Your task to perform on an android device: Search for jbl flip 4 on amazon.com, select the first entry, add it to the cart, then select checkout. Image 0: 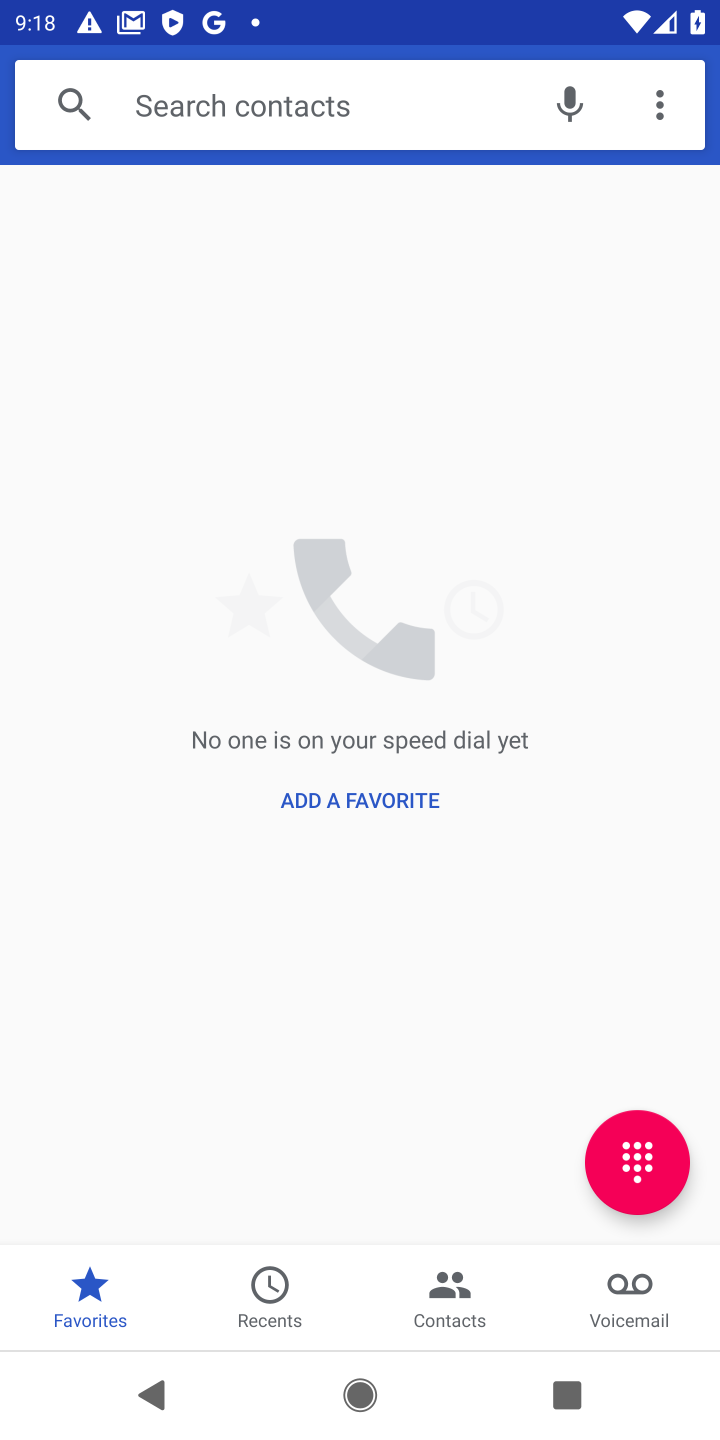
Step 0: press home button
Your task to perform on an android device: Search for jbl flip 4 on amazon.com, select the first entry, add it to the cart, then select checkout. Image 1: 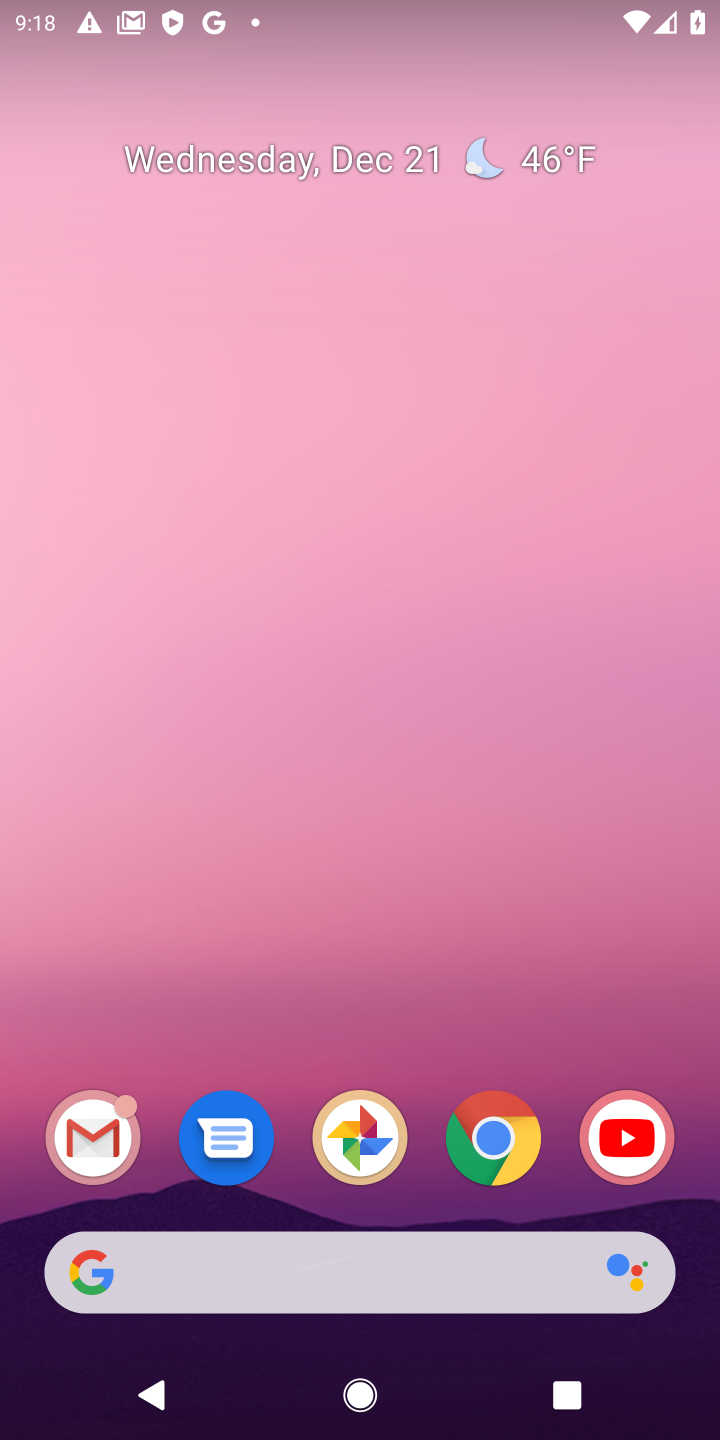
Step 1: click (472, 1151)
Your task to perform on an android device: Search for jbl flip 4 on amazon.com, select the first entry, add it to the cart, then select checkout. Image 2: 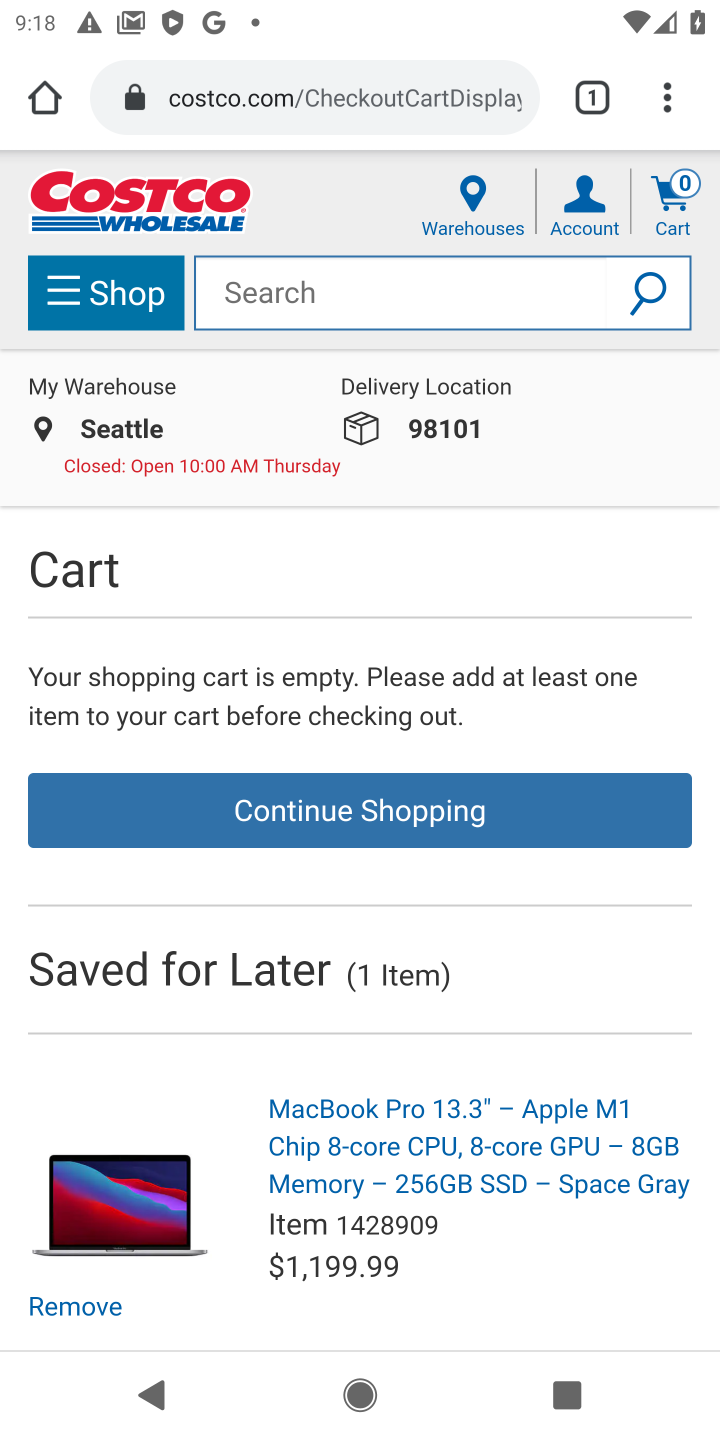
Step 2: click (256, 90)
Your task to perform on an android device: Search for jbl flip 4 on amazon.com, select the first entry, add it to the cart, then select checkout. Image 3: 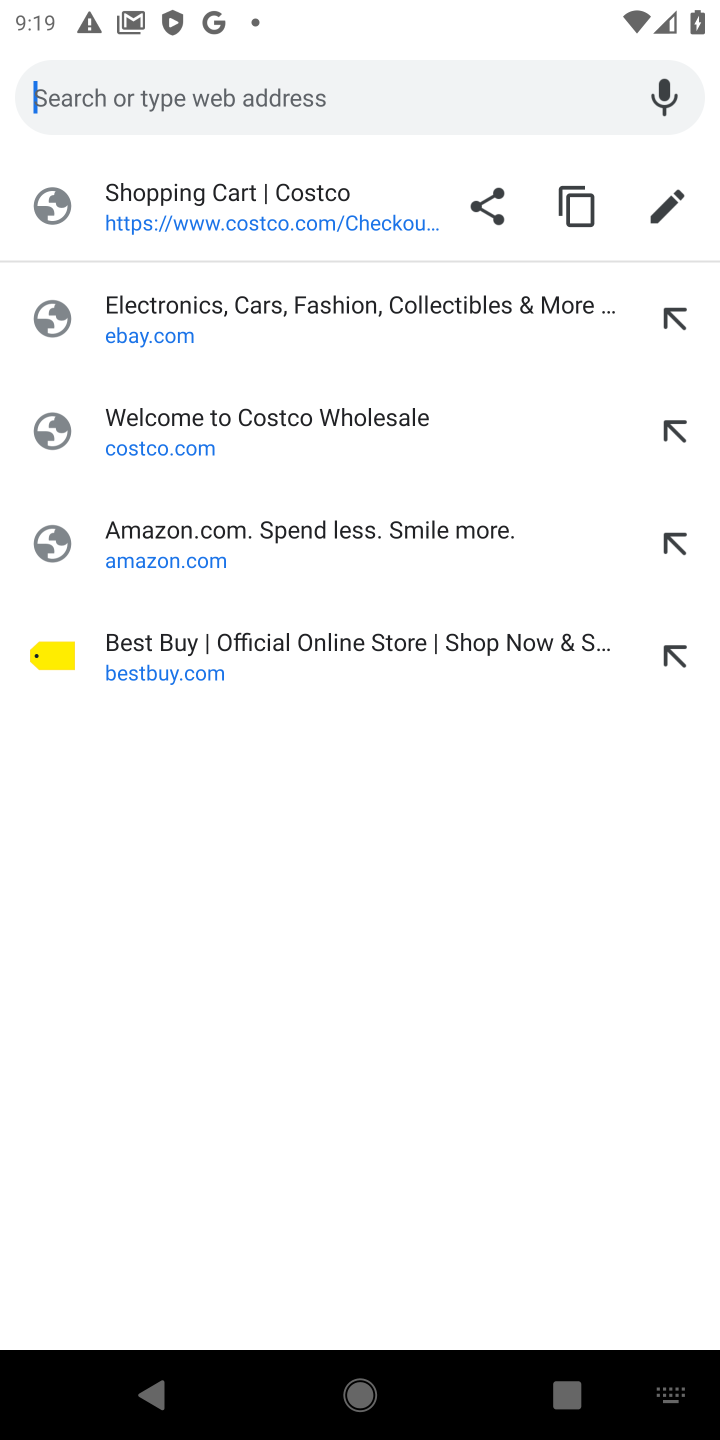
Step 3: click (157, 547)
Your task to perform on an android device: Search for jbl flip 4 on amazon.com, select the first entry, add it to the cart, then select checkout. Image 4: 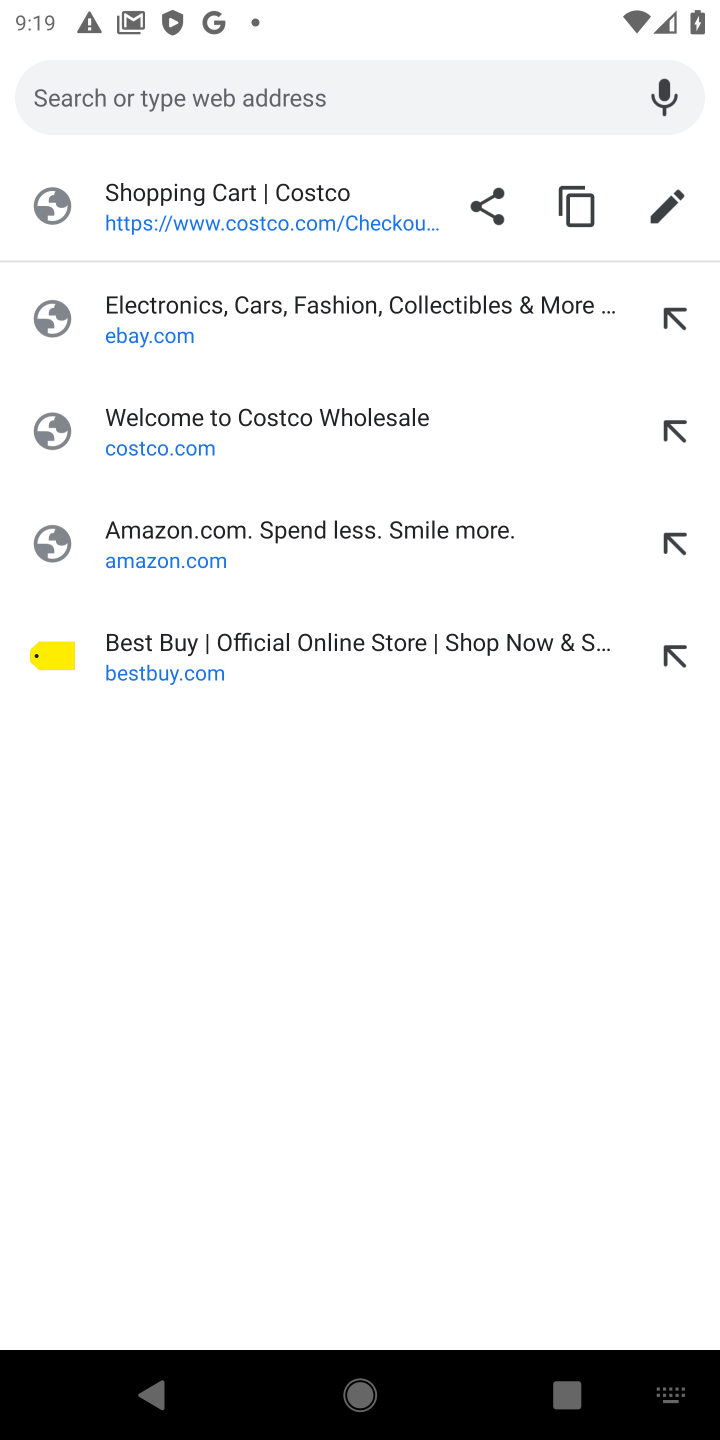
Step 4: click (156, 549)
Your task to perform on an android device: Search for jbl flip 4 on amazon.com, select the first entry, add it to the cart, then select checkout. Image 5: 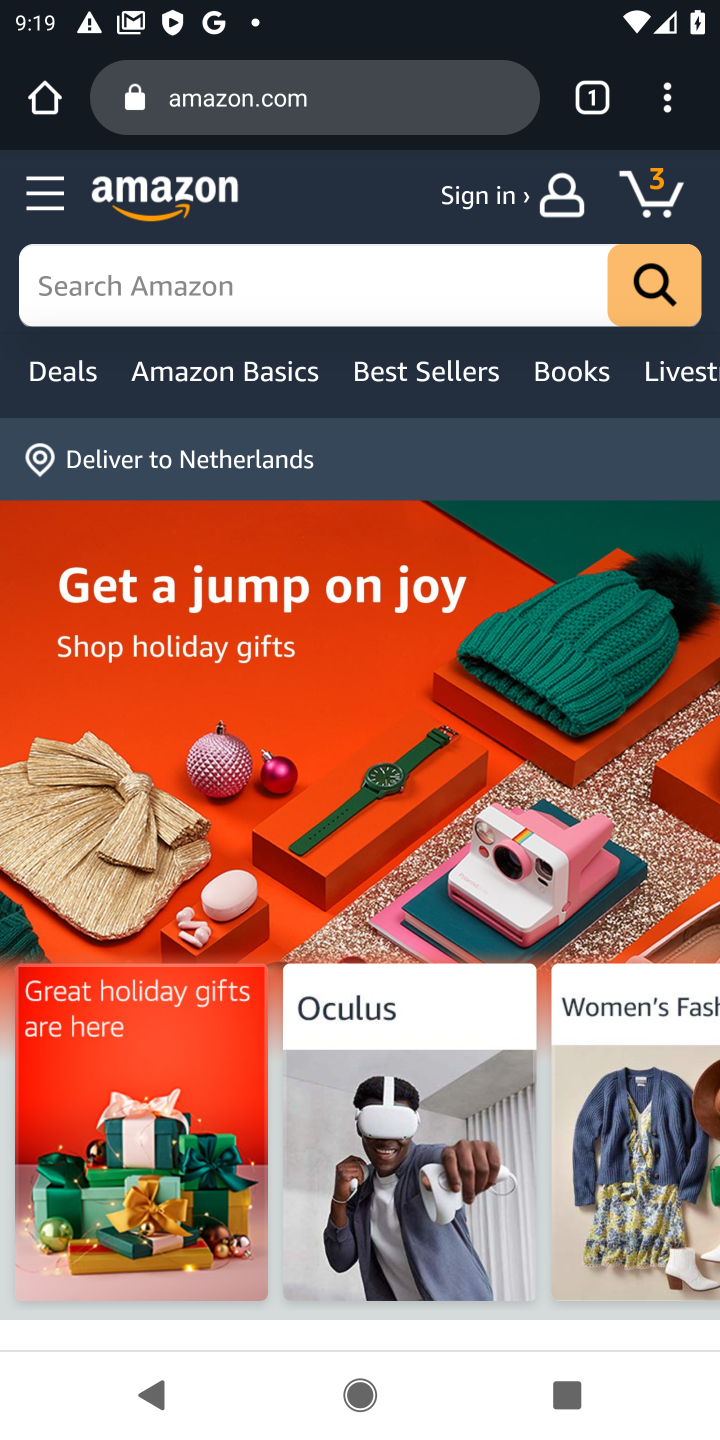
Step 5: click (148, 280)
Your task to perform on an android device: Search for jbl flip 4 on amazon.com, select the first entry, add it to the cart, then select checkout. Image 6: 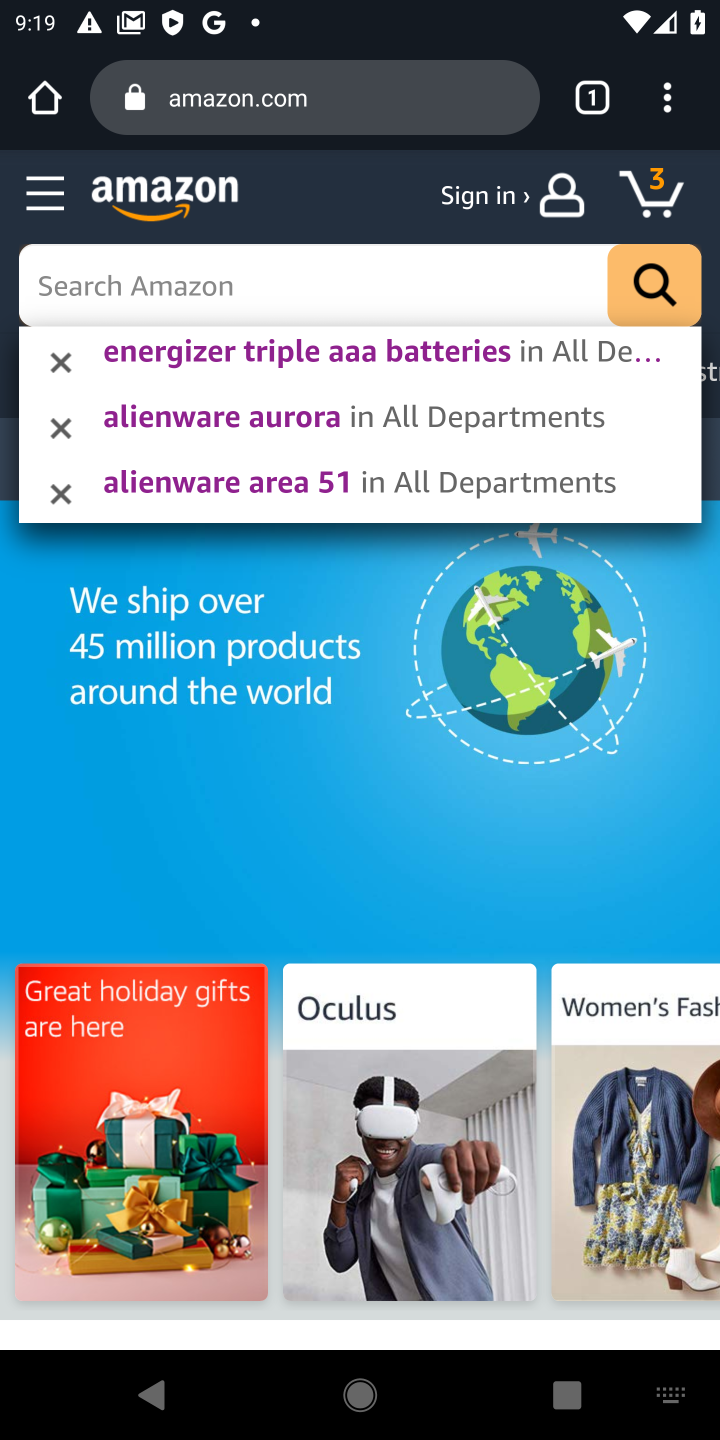
Step 6: type " jbl flip 4"
Your task to perform on an android device: Search for jbl flip 4 on amazon.com, select the first entry, add it to the cart, then select checkout. Image 7: 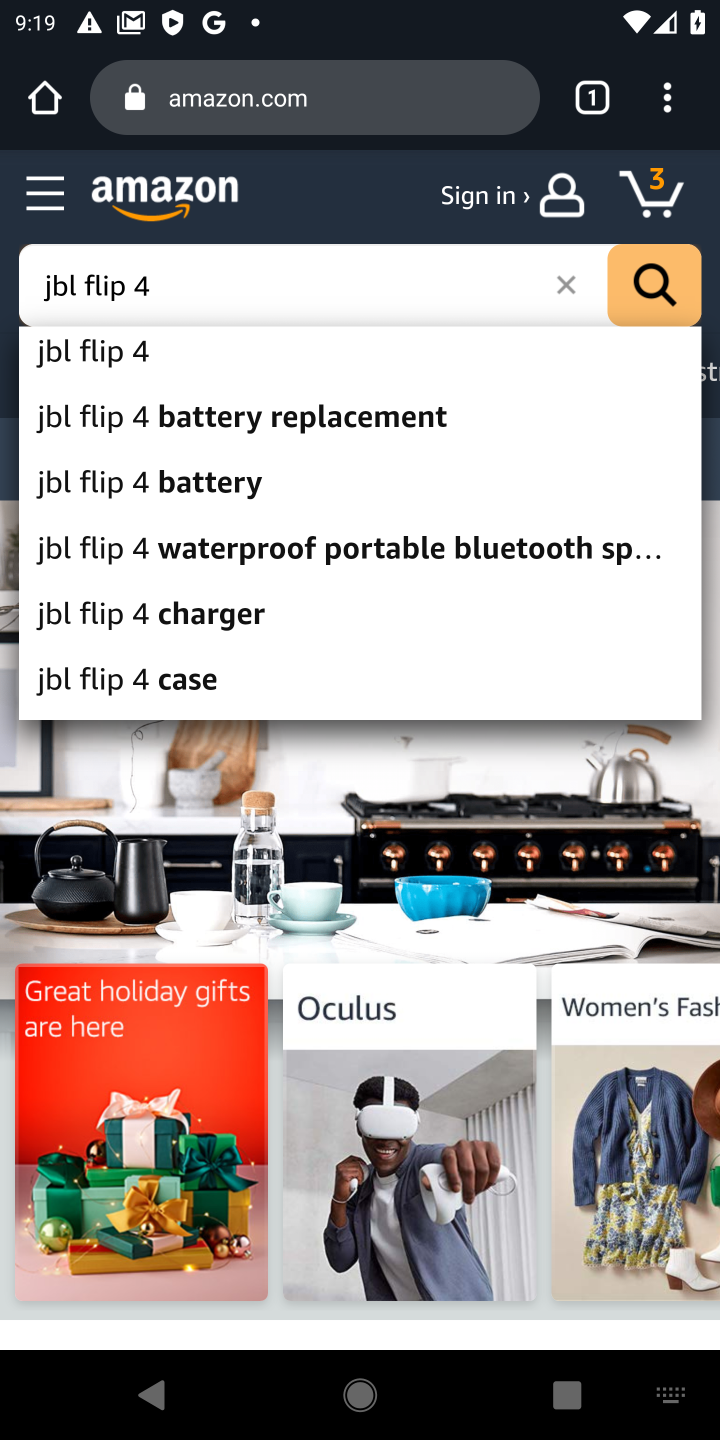
Step 7: click (105, 365)
Your task to perform on an android device: Search for jbl flip 4 on amazon.com, select the first entry, add it to the cart, then select checkout. Image 8: 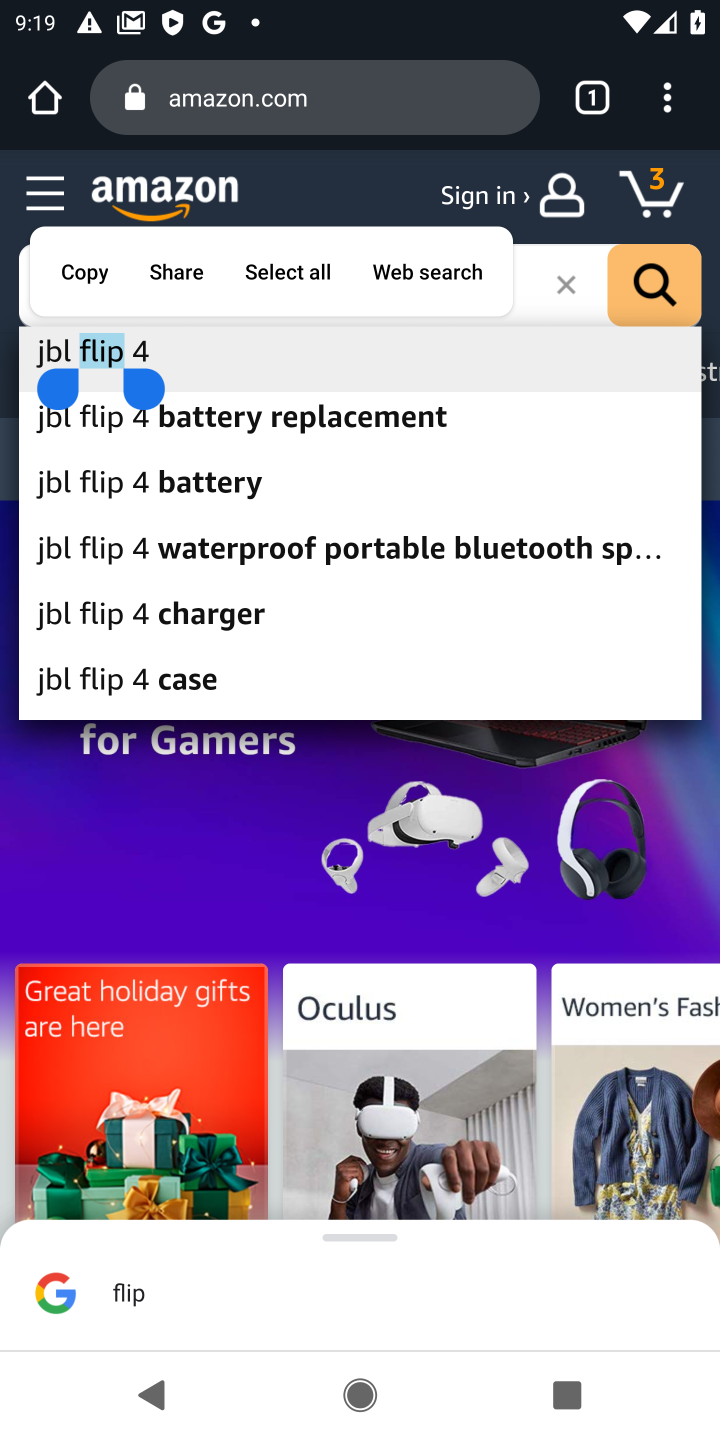
Step 8: click (147, 362)
Your task to perform on an android device: Search for jbl flip 4 on amazon.com, select the first entry, add it to the cart, then select checkout. Image 9: 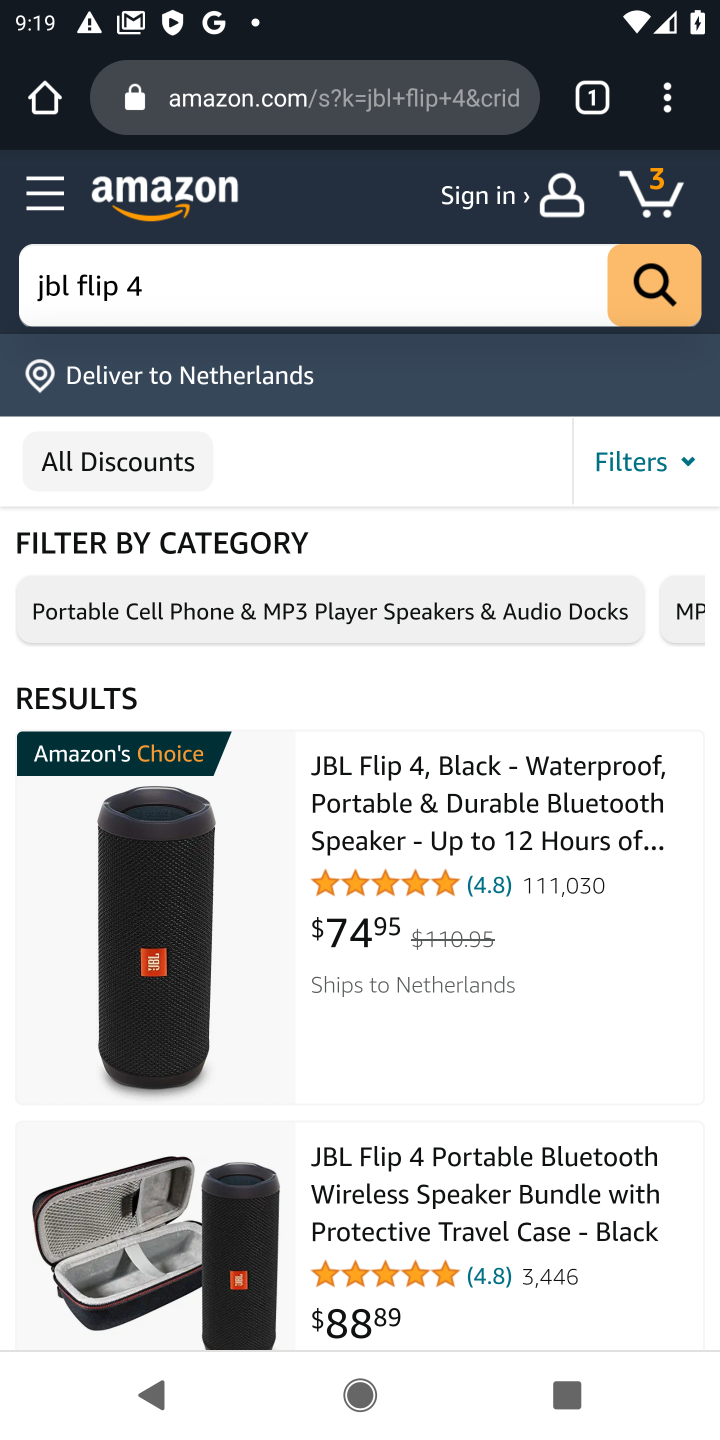
Step 9: click (475, 818)
Your task to perform on an android device: Search for jbl flip 4 on amazon.com, select the first entry, add it to the cart, then select checkout. Image 10: 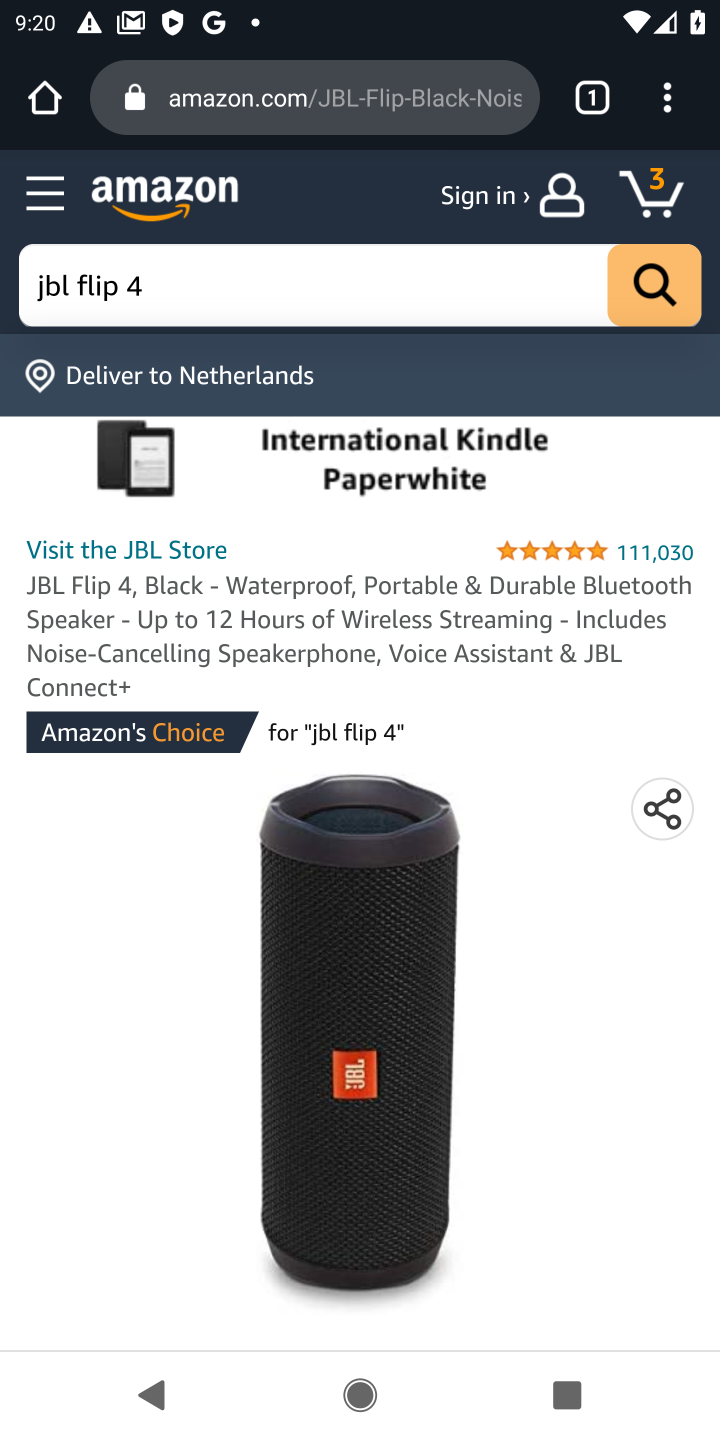
Step 10: drag from (371, 1062) to (402, 533)
Your task to perform on an android device: Search for jbl flip 4 on amazon.com, select the first entry, add it to the cart, then select checkout. Image 11: 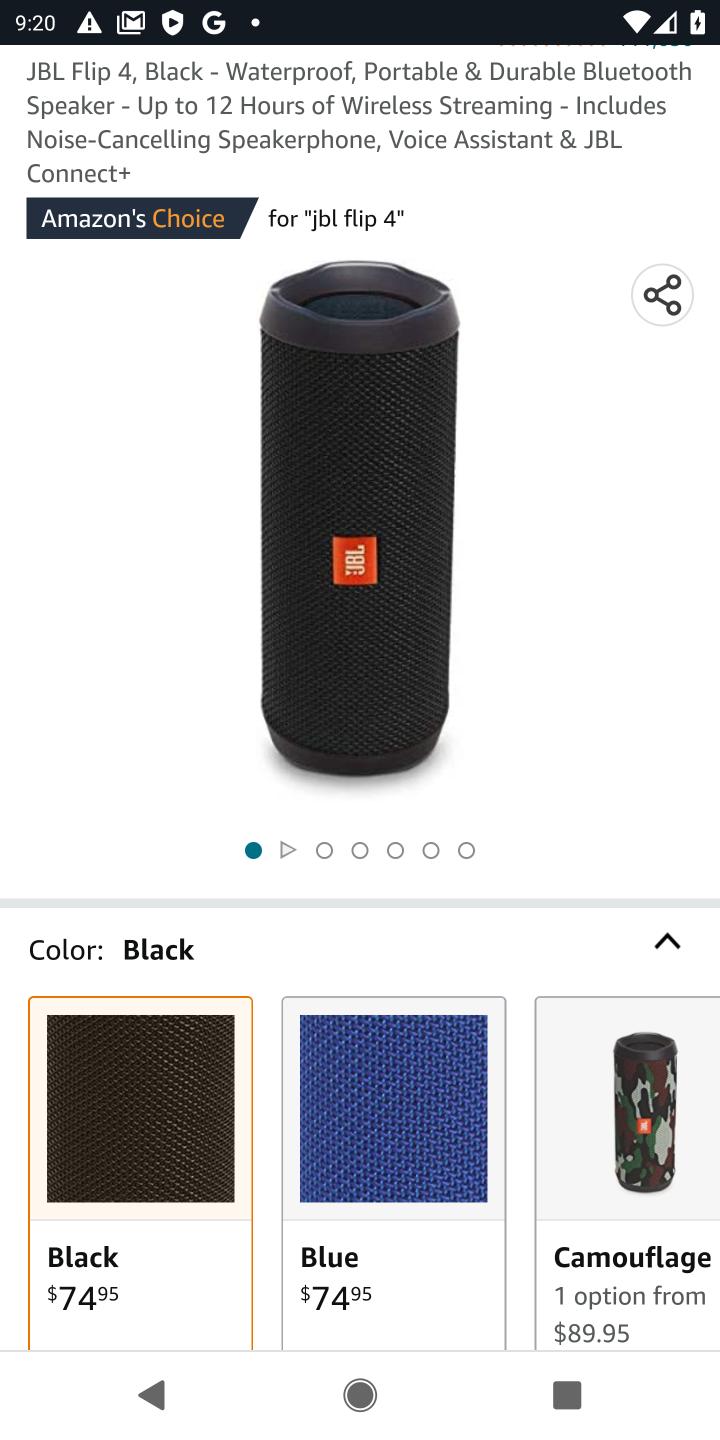
Step 11: drag from (383, 1021) to (384, 519)
Your task to perform on an android device: Search for jbl flip 4 on amazon.com, select the first entry, add it to the cart, then select checkout. Image 12: 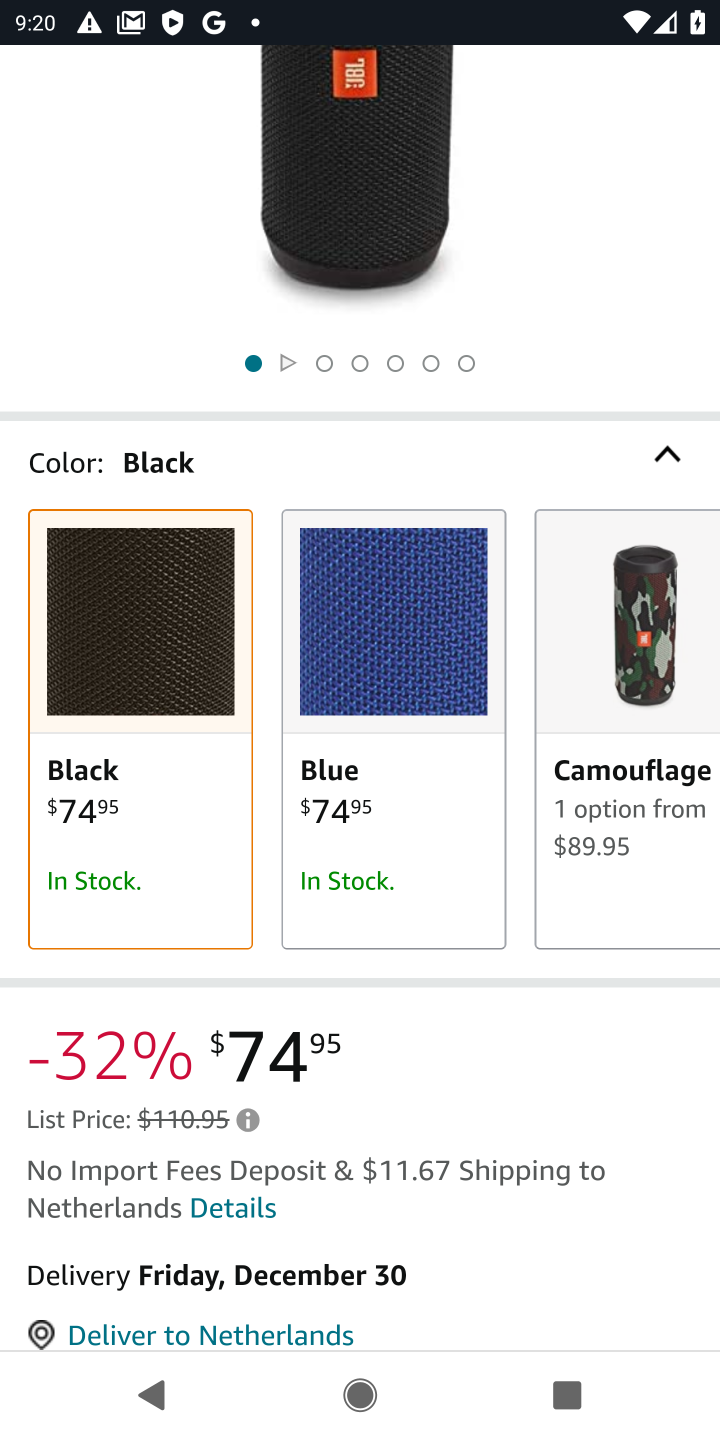
Step 12: drag from (416, 1032) to (390, 385)
Your task to perform on an android device: Search for jbl flip 4 on amazon.com, select the first entry, add it to the cart, then select checkout. Image 13: 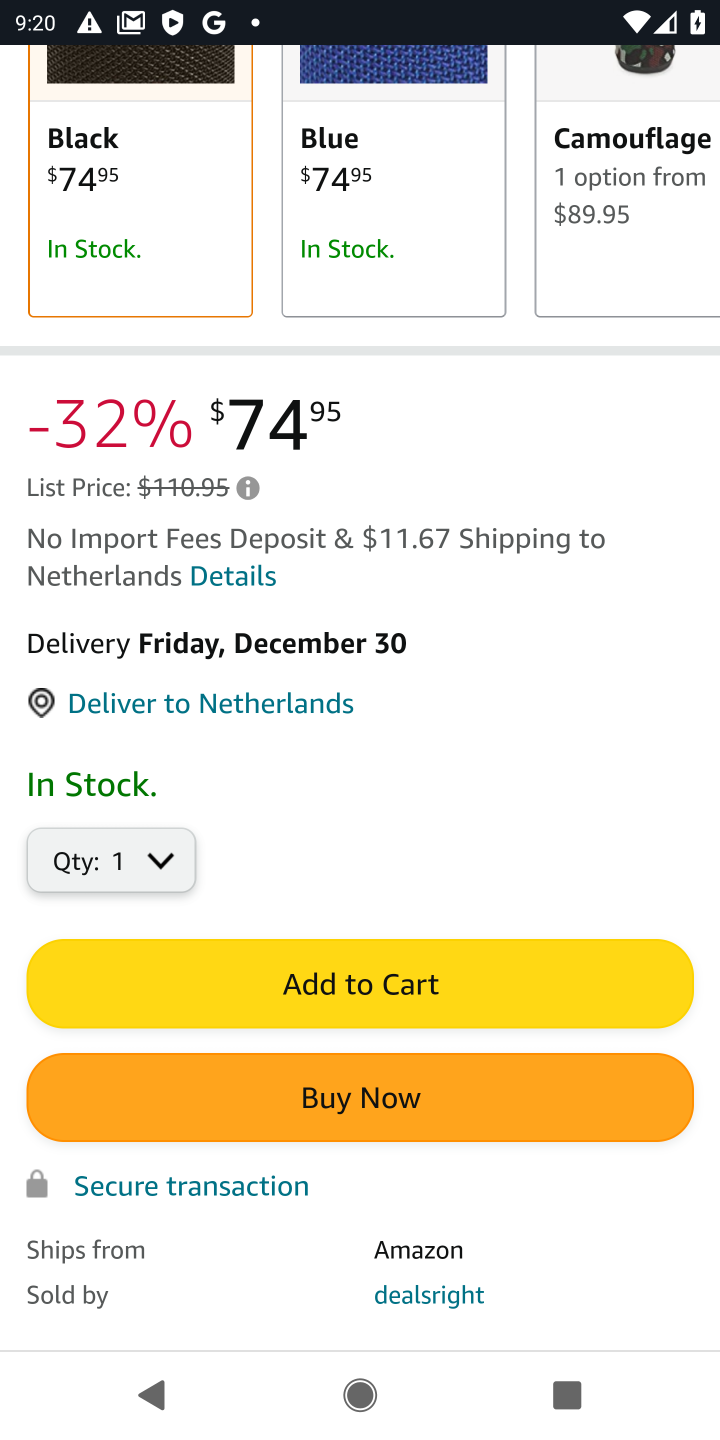
Step 13: click (357, 979)
Your task to perform on an android device: Search for jbl flip 4 on amazon.com, select the first entry, add it to the cart, then select checkout. Image 14: 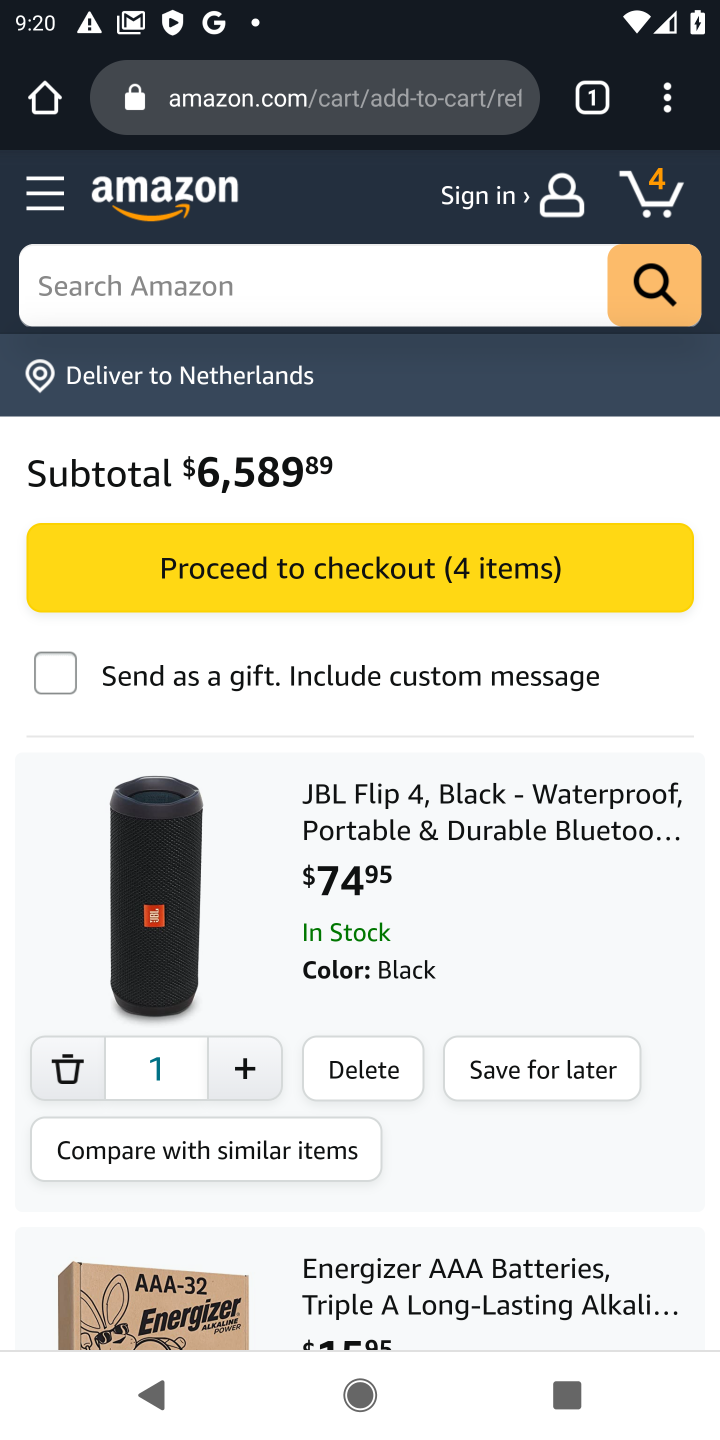
Step 14: click (349, 584)
Your task to perform on an android device: Search for jbl flip 4 on amazon.com, select the first entry, add it to the cart, then select checkout. Image 15: 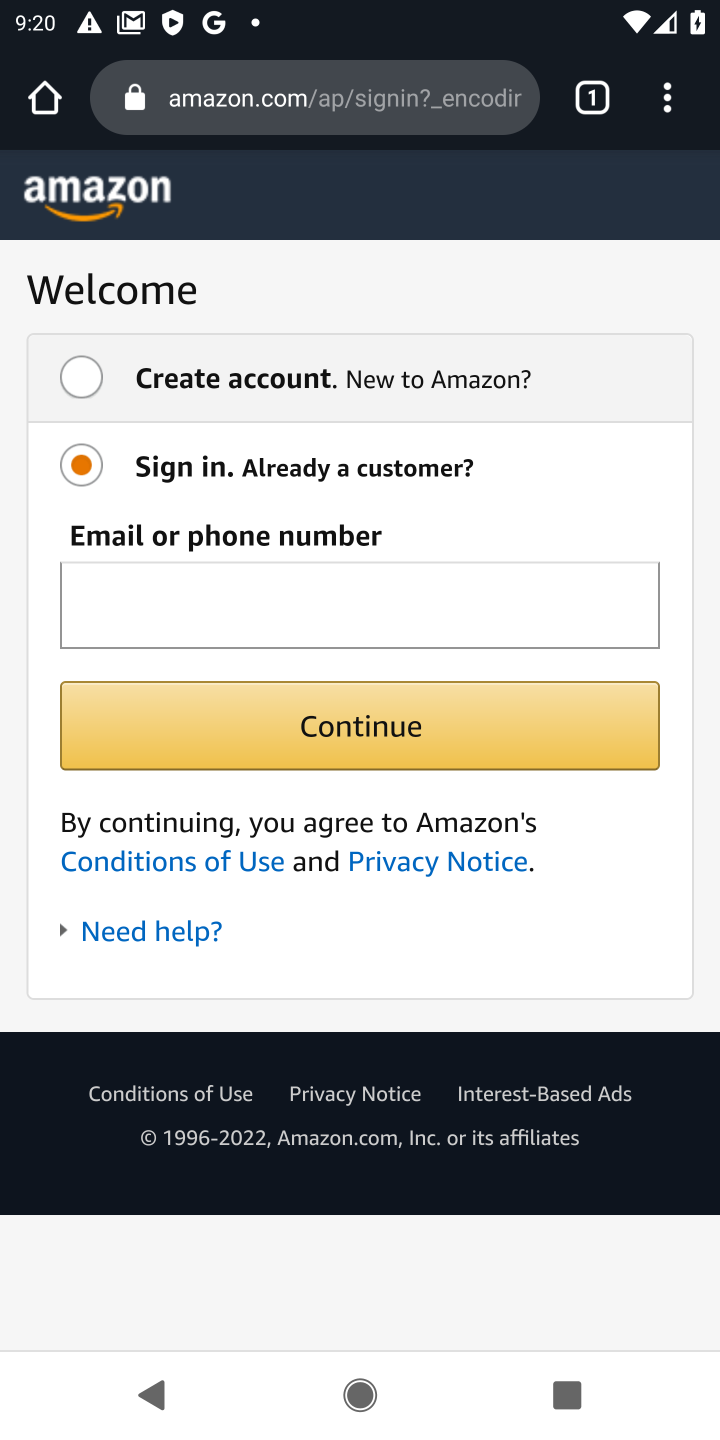
Step 15: task complete